Your task to perform on an android device: Check the settings for the Uber app Image 0: 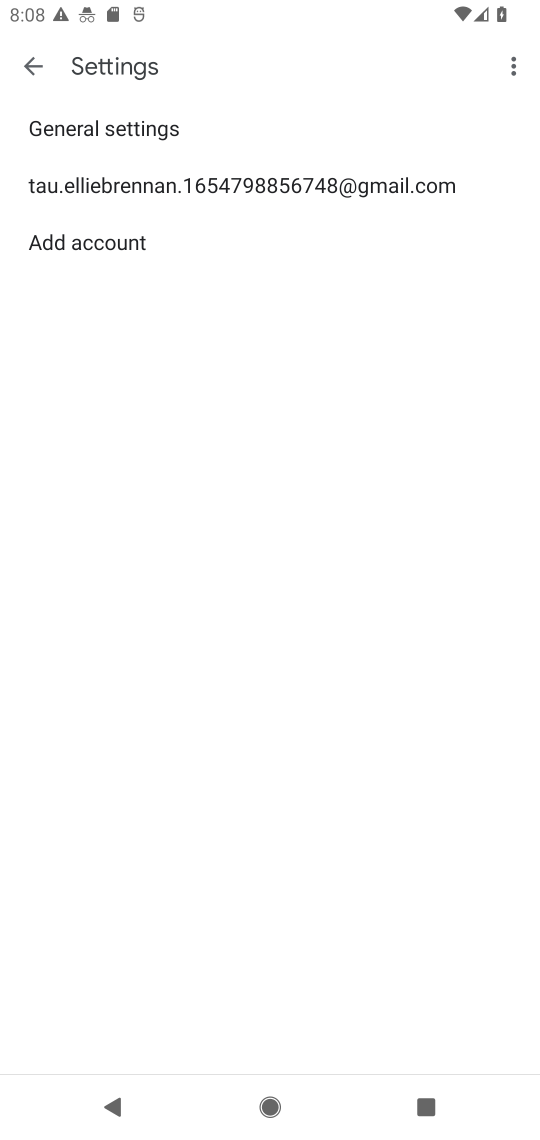
Step 0: press home button
Your task to perform on an android device: Check the settings for the Uber app Image 1: 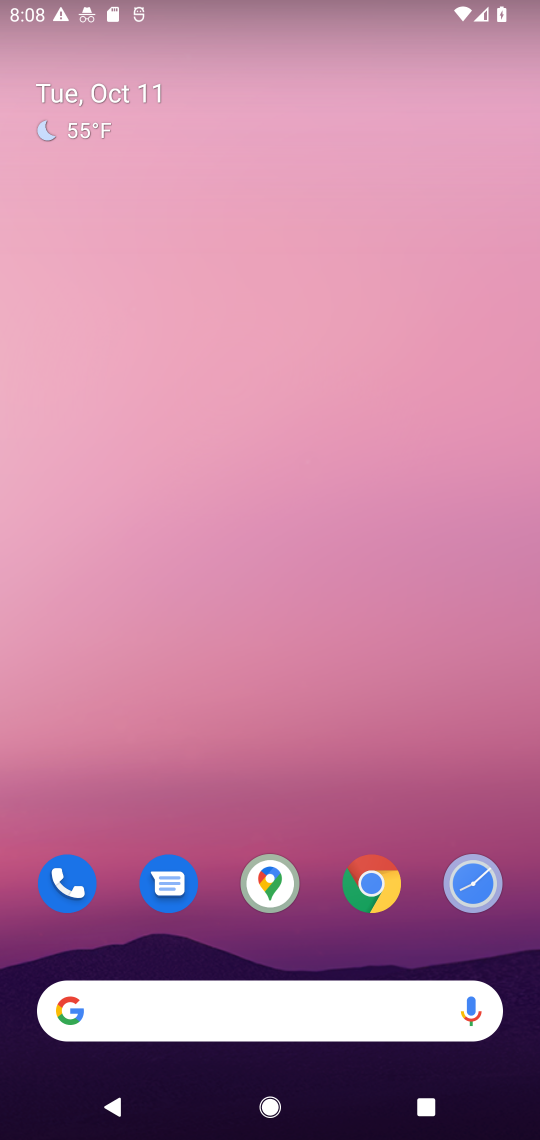
Step 1: task complete